Your task to perform on an android device: Open calendar and show me the second week of next month Image 0: 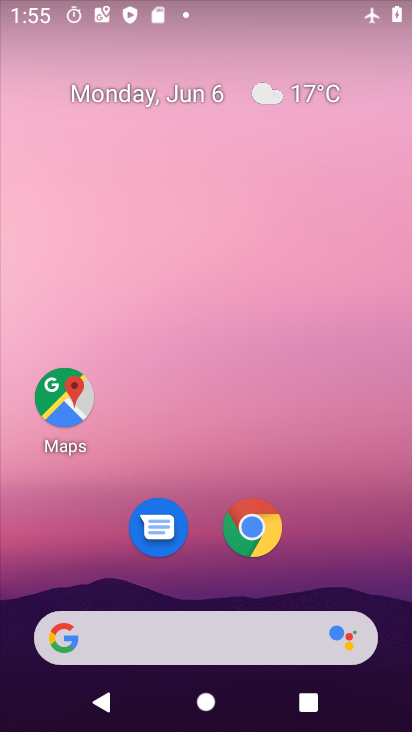
Step 0: drag from (233, 713) to (221, 112)
Your task to perform on an android device: Open calendar and show me the second week of next month Image 1: 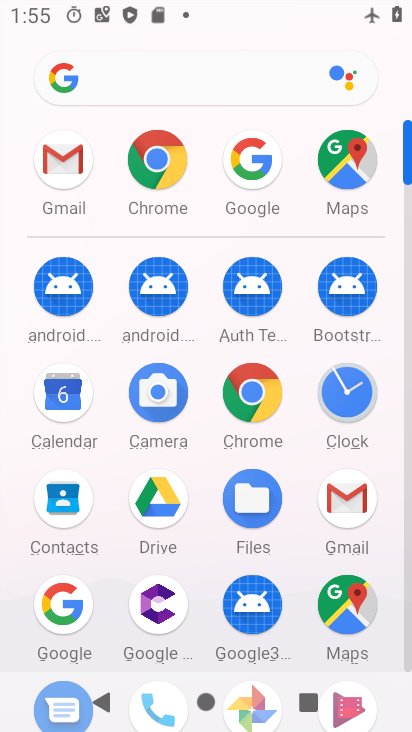
Step 1: click (65, 393)
Your task to perform on an android device: Open calendar and show me the second week of next month Image 2: 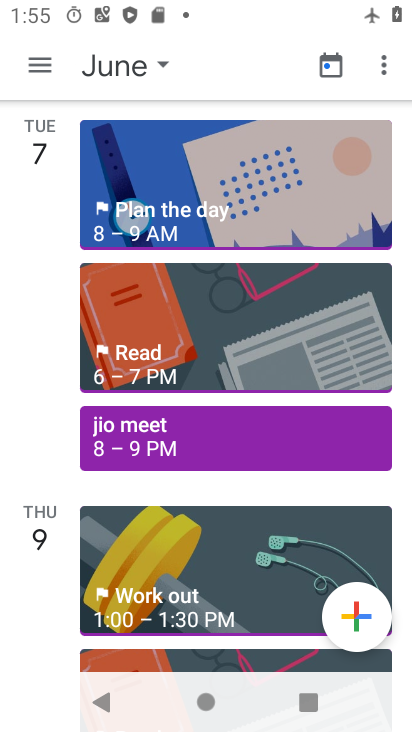
Step 2: click (161, 59)
Your task to perform on an android device: Open calendar and show me the second week of next month Image 3: 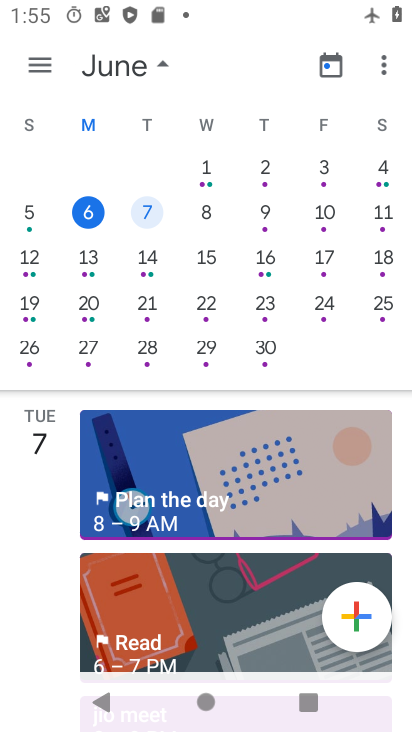
Step 3: drag from (322, 253) to (47, 245)
Your task to perform on an android device: Open calendar and show me the second week of next month Image 4: 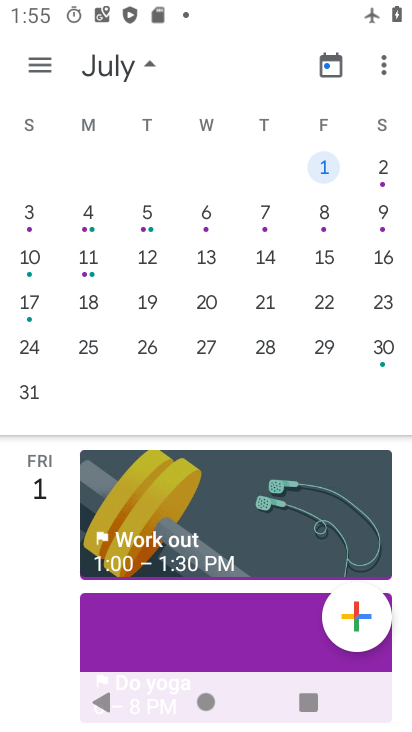
Step 4: click (87, 253)
Your task to perform on an android device: Open calendar and show me the second week of next month Image 5: 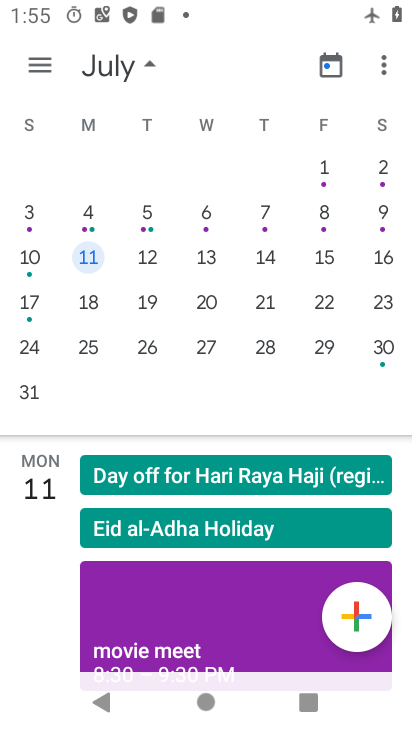
Step 5: click (43, 67)
Your task to perform on an android device: Open calendar and show me the second week of next month Image 6: 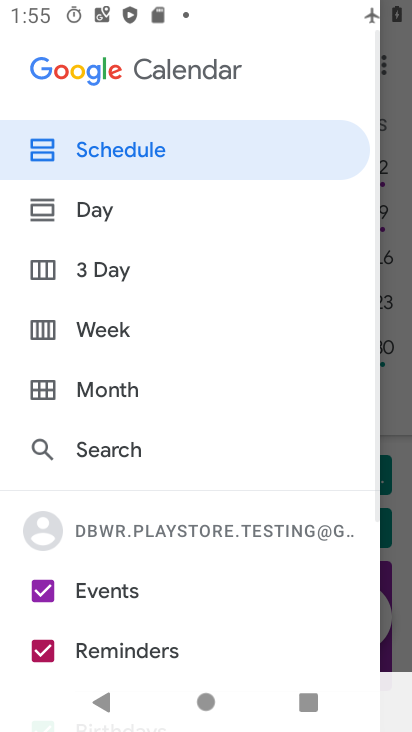
Step 6: click (103, 326)
Your task to perform on an android device: Open calendar and show me the second week of next month Image 7: 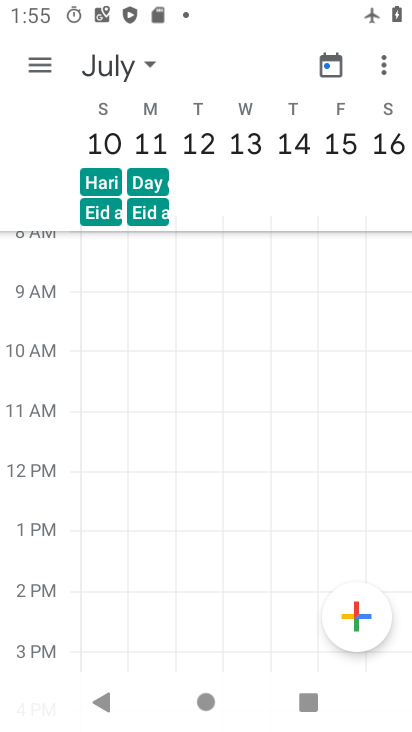
Step 7: task complete